Your task to perform on an android device: turn on translation in the chrome app Image 0: 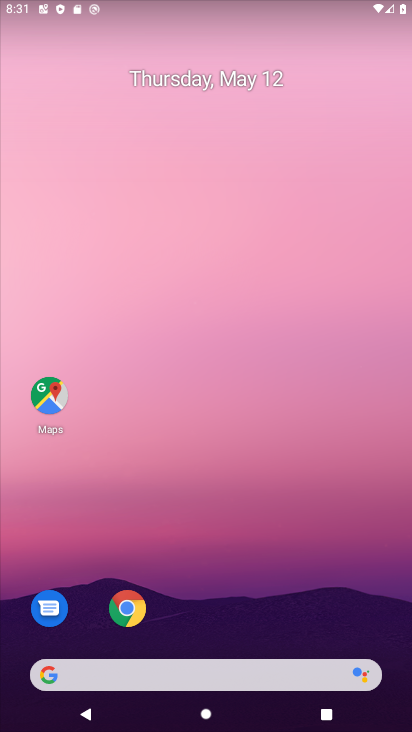
Step 0: click (127, 626)
Your task to perform on an android device: turn on translation in the chrome app Image 1: 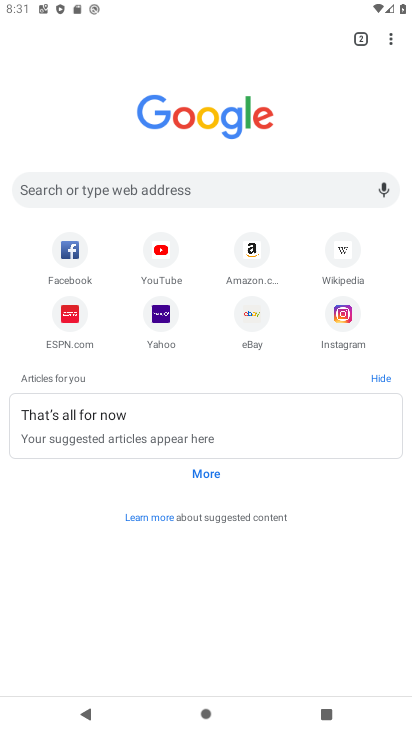
Step 1: drag from (393, 50) to (297, 319)
Your task to perform on an android device: turn on translation in the chrome app Image 2: 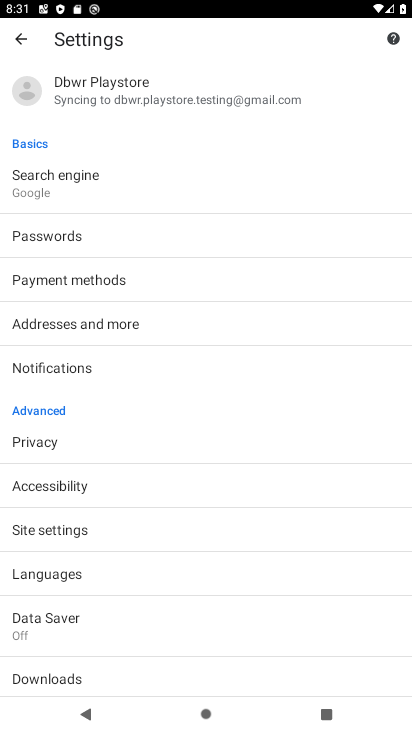
Step 2: click (102, 569)
Your task to perform on an android device: turn on translation in the chrome app Image 3: 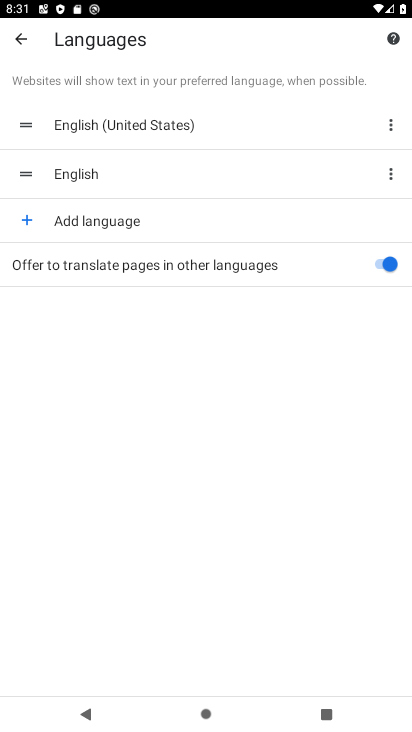
Step 3: task complete